Your task to perform on an android device: change alarm snooze length Image 0: 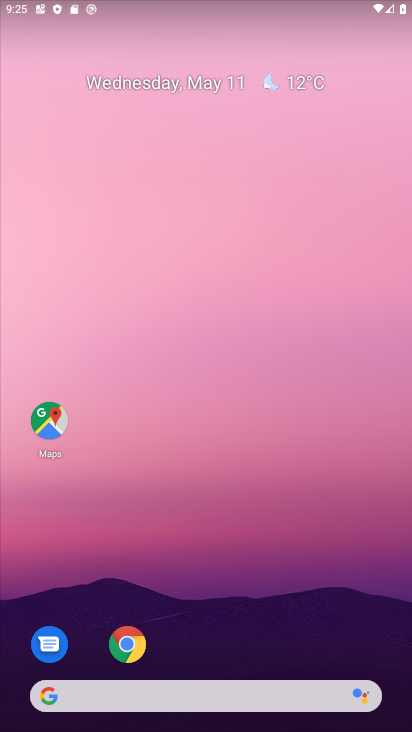
Step 0: drag from (302, 610) to (252, 175)
Your task to perform on an android device: change alarm snooze length Image 1: 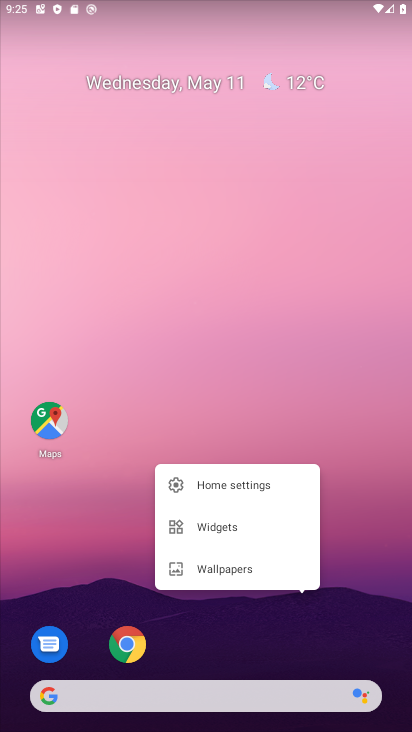
Step 1: click (358, 547)
Your task to perform on an android device: change alarm snooze length Image 2: 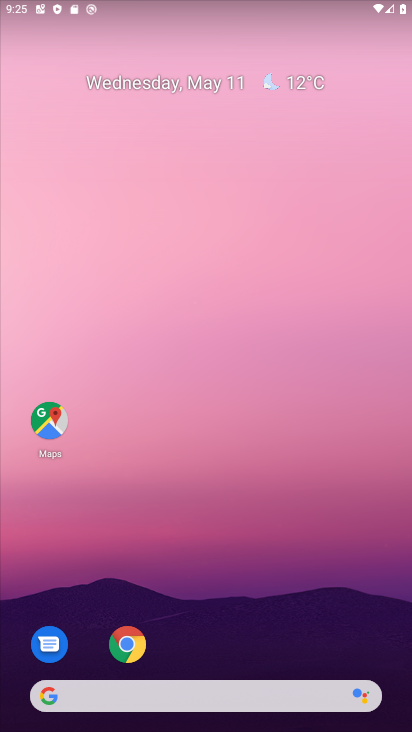
Step 2: drag from (283, 639) to (235, 166)
Your task to perform on an android device: change alarm snooze length Image 3: 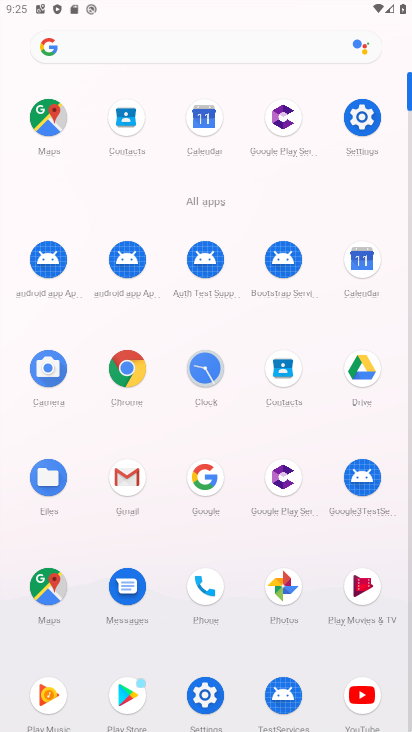
Step 3: click (205, 365)
Your task to perform on an android device: change alarm snooze length Image 4: 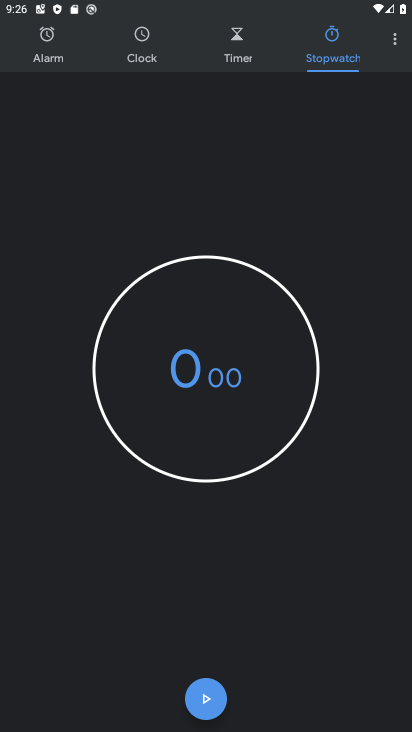
Step 4: click (405, 46)
Your task to perform on an android device: change alarm snooze length Image 5: 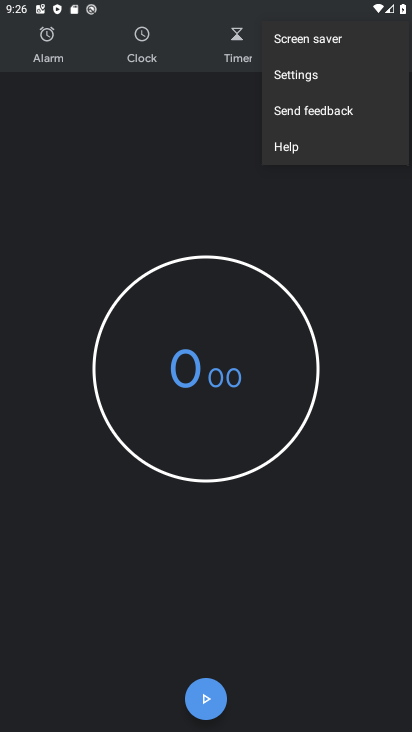
Step 5: click (322, 85)
Your task to perform on an android device: change alarm snooze length Image 6: 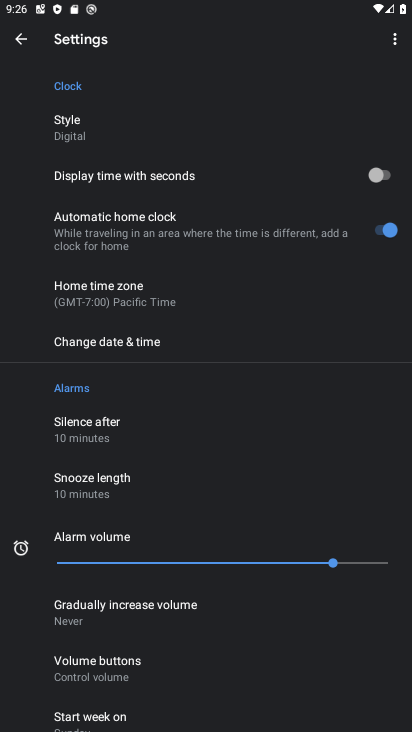
Step 6: click (161, 488)
Your task to perform on an android device: change alarm snooze length Image 7: 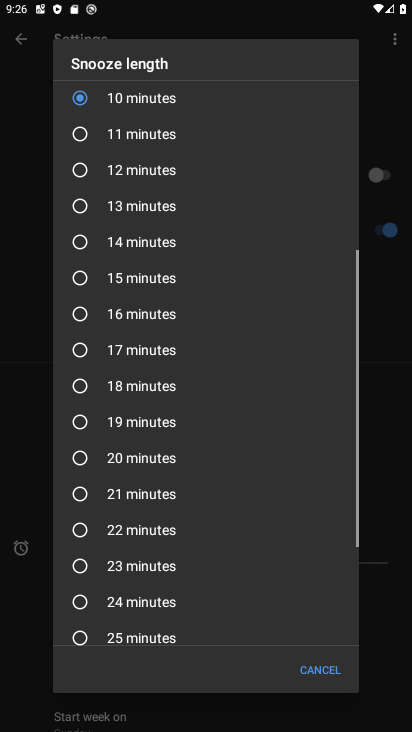
Step 7: click (185, 436)
Your task to perform on an android device: change alarm snooze length Image 8: 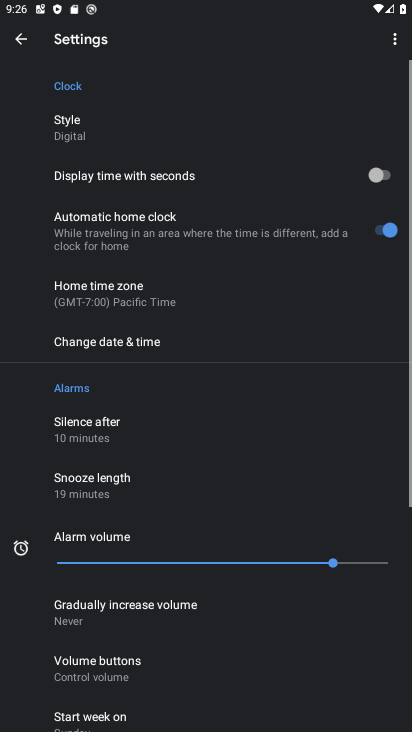
Step 8: task complete